Your task to perform on an android device: Open Android settings Image 0: 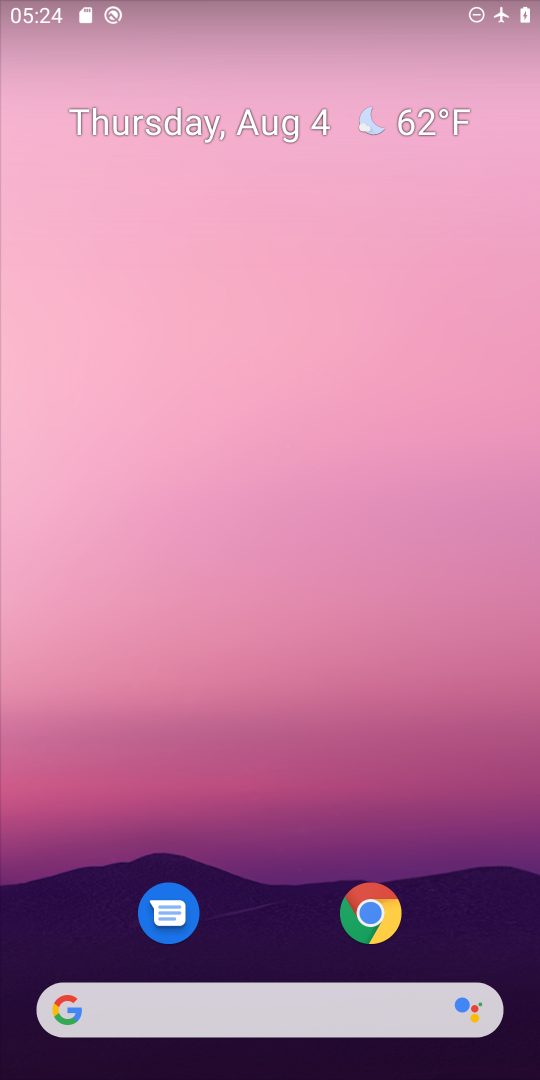
Step 0: drag from (355, 992) to (390, 59)
Your task to perform on an android device: Open Android settings Image 1: 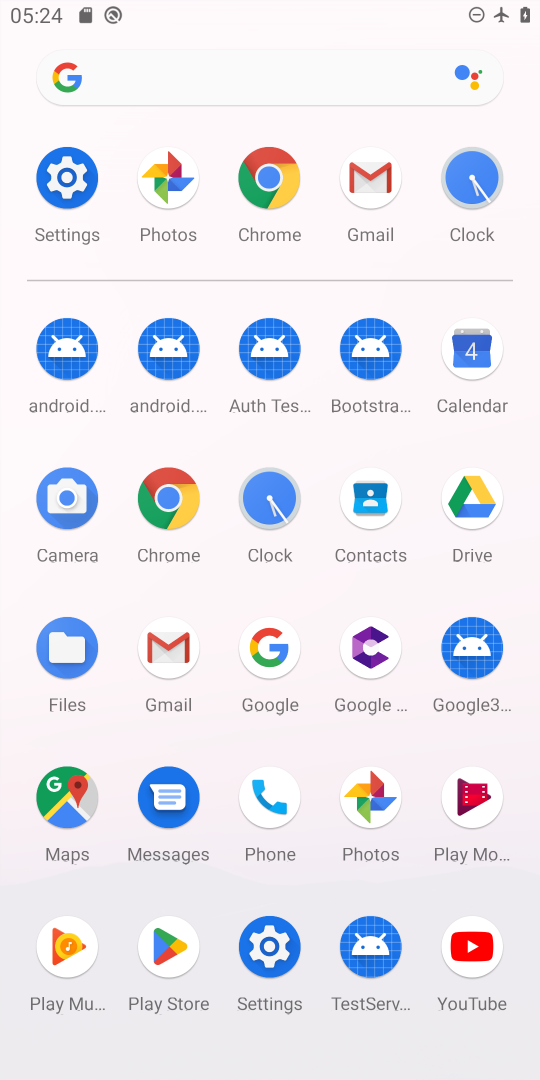
Step 1: click (69, 189)
Your task to perform on an android device: Open Android settings Image 2: 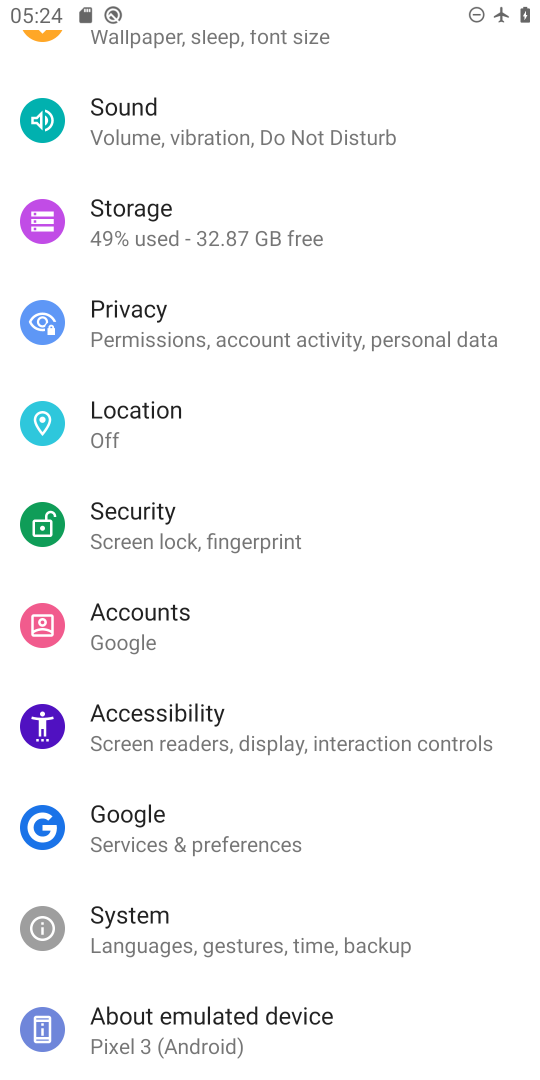
Step 2: drag from (255, 233) to (277, 1057)
Your task to perform on an android device: Open Android settings Image 3: 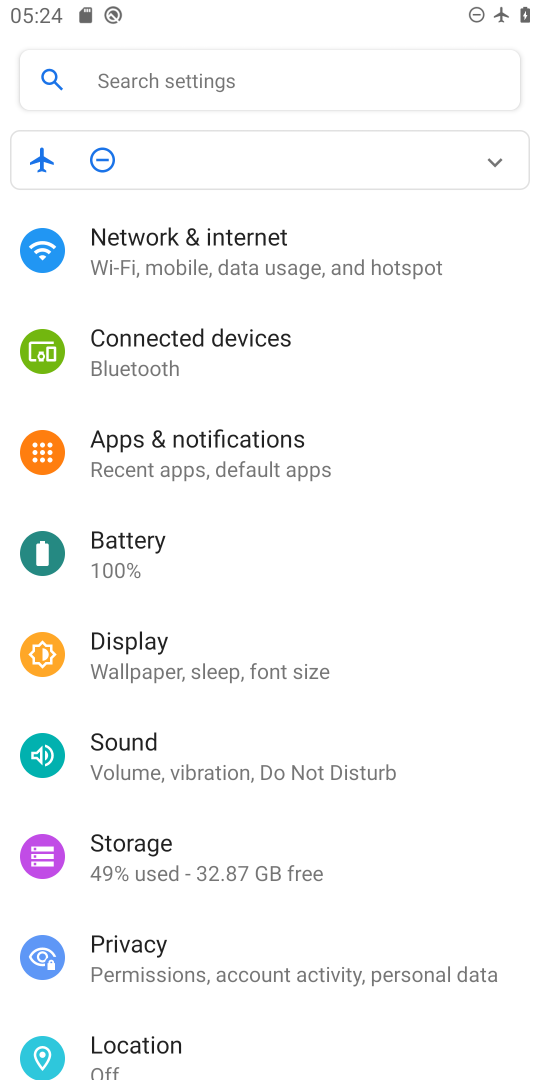
Step 3: click (217, 239)
Your task to perform on an android device: Open Android settings Image 4: 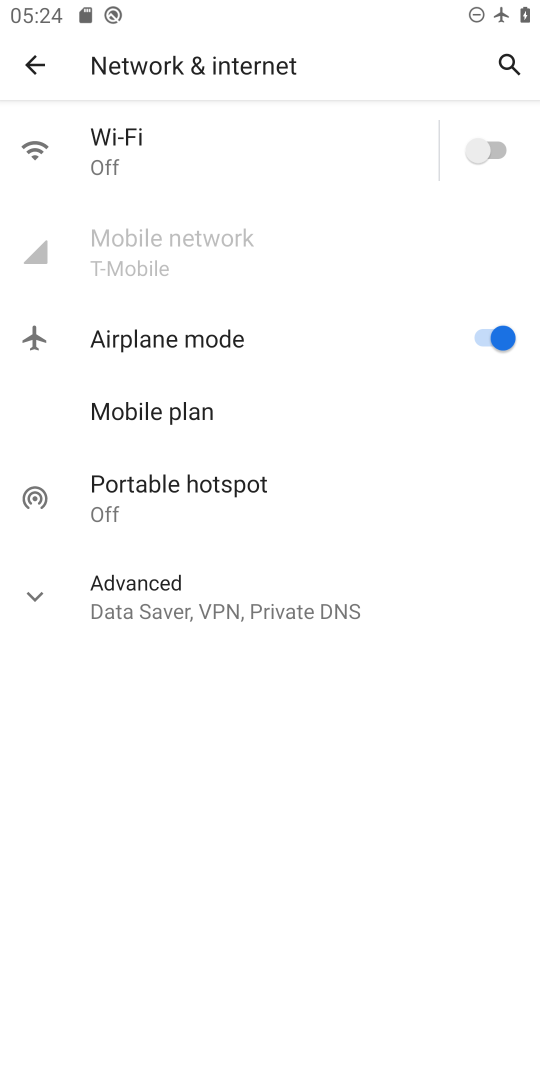
Step 4: press home button
Your task to perform on an android device: Open Android settings Image 5: 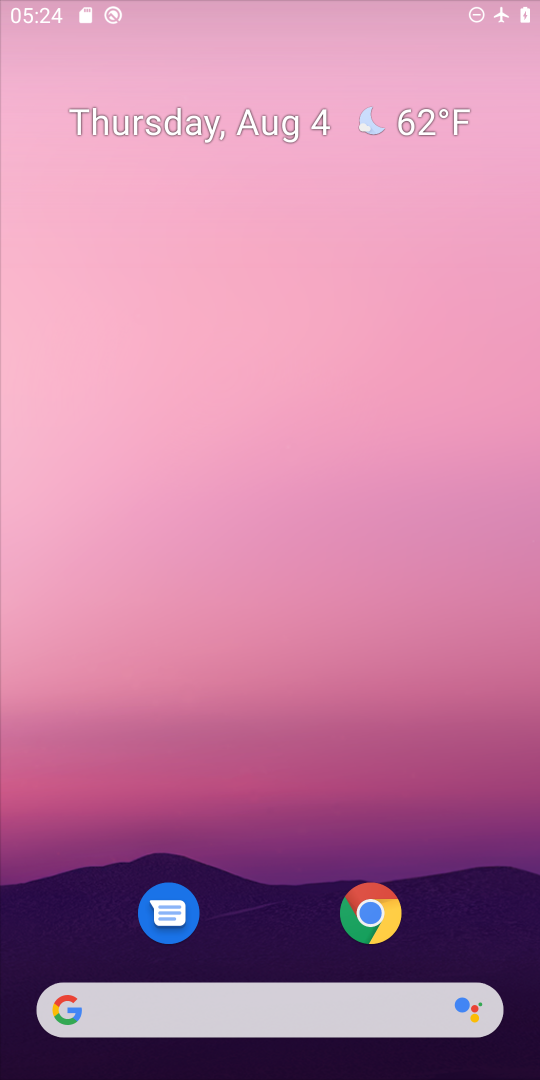
Step 5: drag from (293, 996) to (403, 44)
Your task to perform on an android device: Open Android settings Image 6: 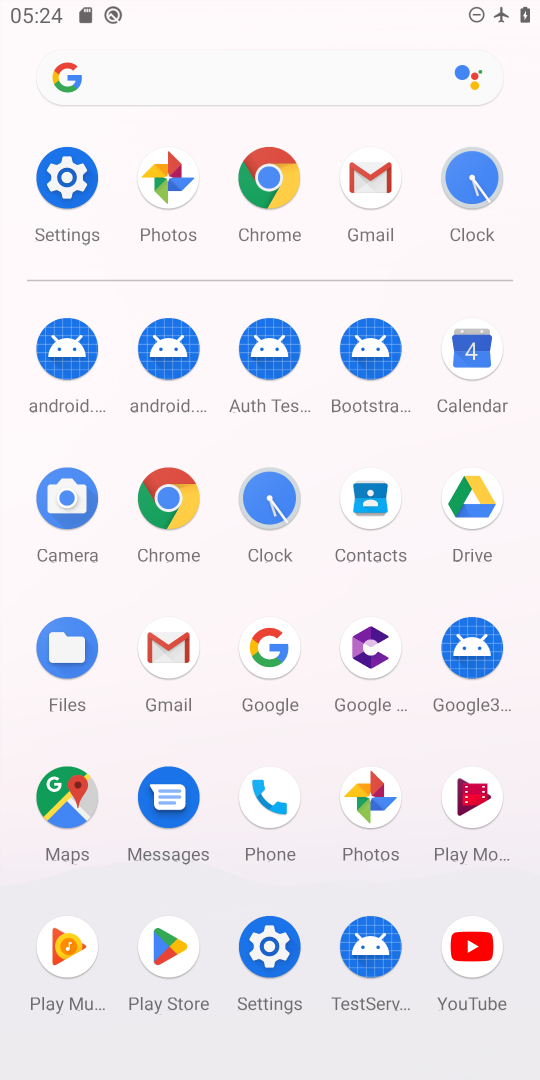
Step 6: click (71, 163)
Your task to perform on an android device: Open Android settings Image 7: 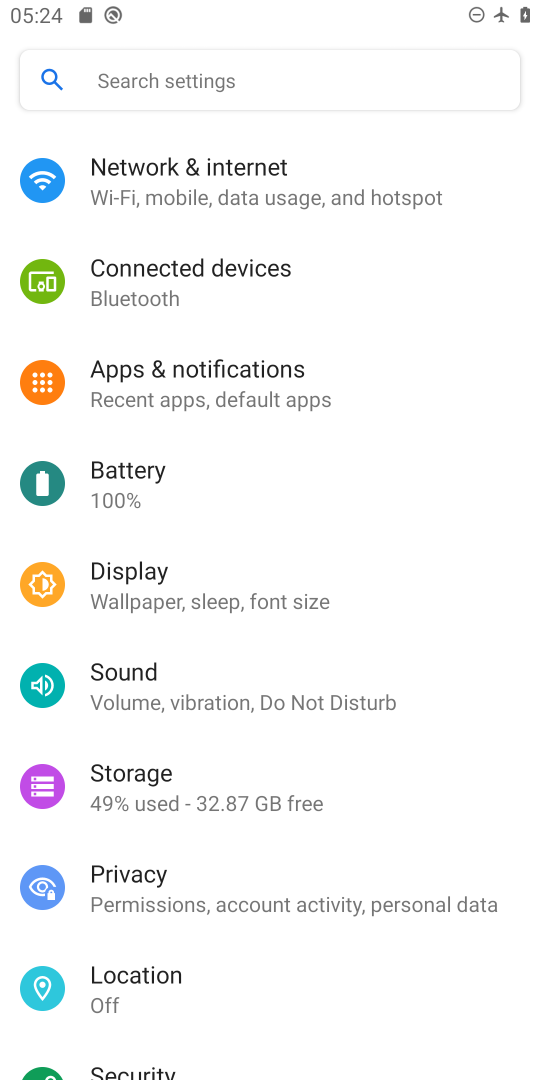
Step 7: drag from (210, 974) to (265, 86)
Your task to perform on an android device: Open Android settings Image 8: 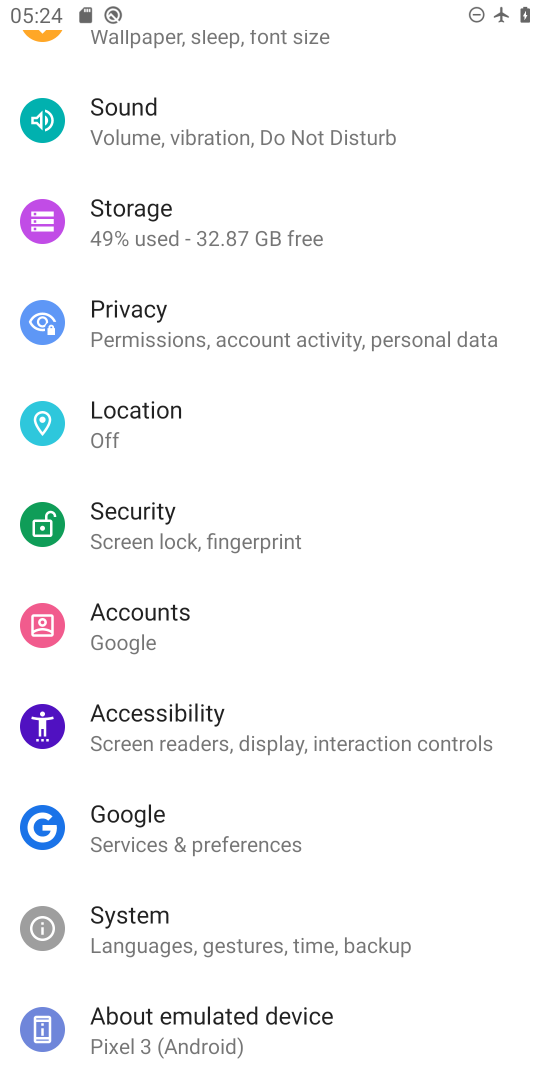
Step 8: click (267, 1031)
Your task to perform on an android device: Open Android settings Image 9: 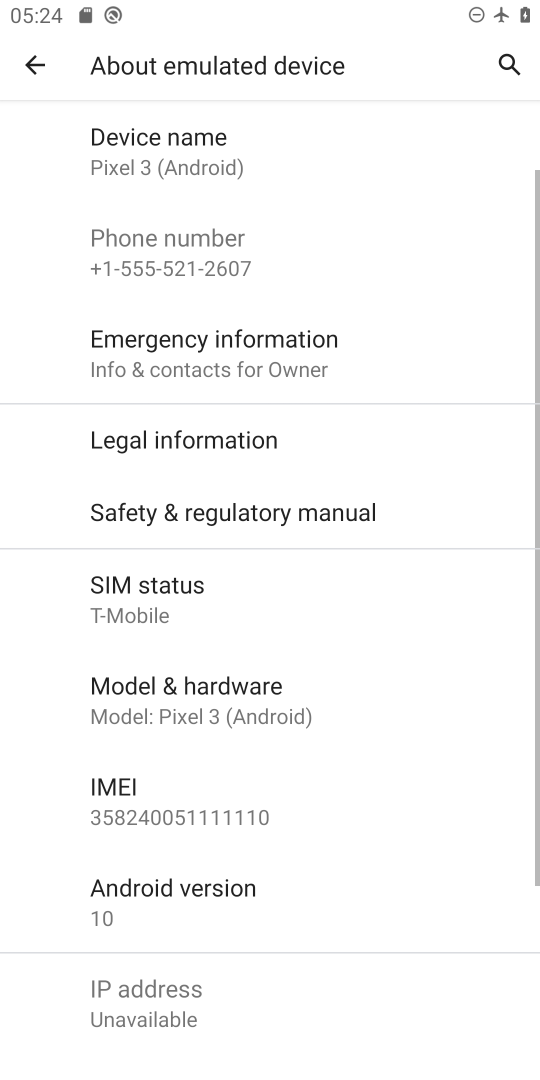
Step 9: task complete